Your task to perform on an android device: Go to accessibility settings Image 0: 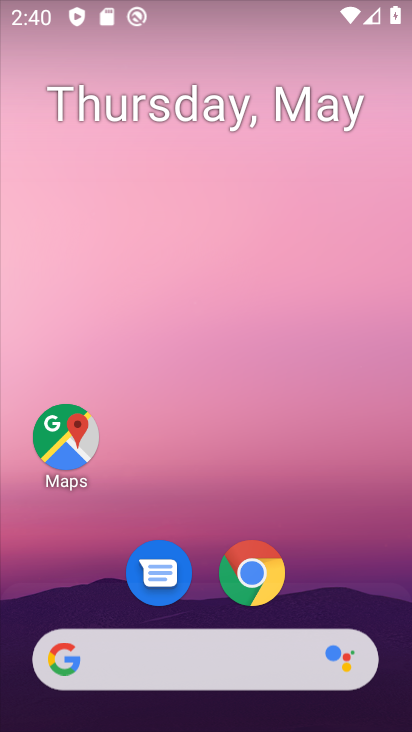
Step 0: drag from (91, 601) to (231, 45)
Your task to perform on an android device: Go to accessibility settings Image 1: 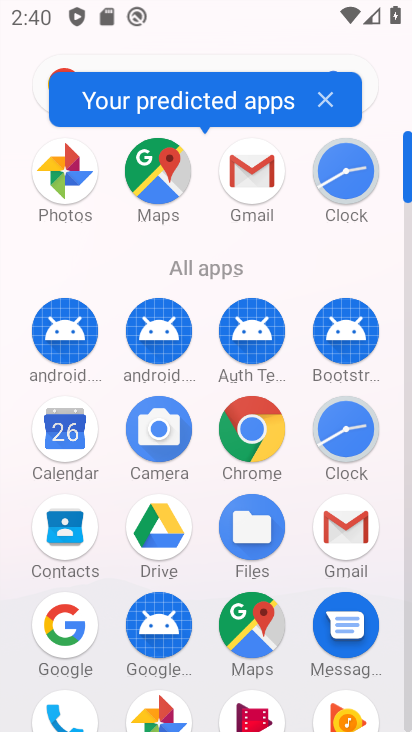
Step 1: drag from (178, 679) to (248, 383)
Your task to perform on an android device: Go to accessibility settings Image 2: 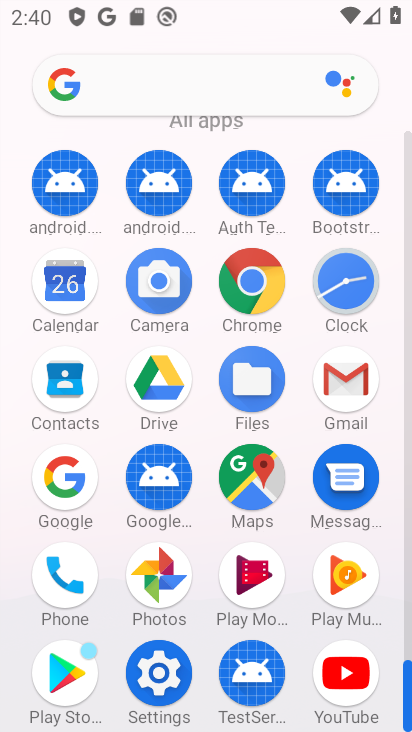
Step 2: click (170, 667)
Your task to perform on an android device: Go to accessibility settings Image 3: 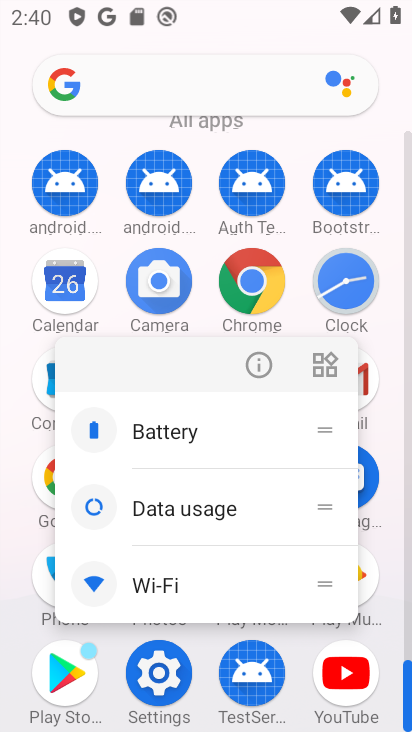
Step 3: click (161, 673)
Your task to perform on an android device: Go to accessibility settings Image 4: 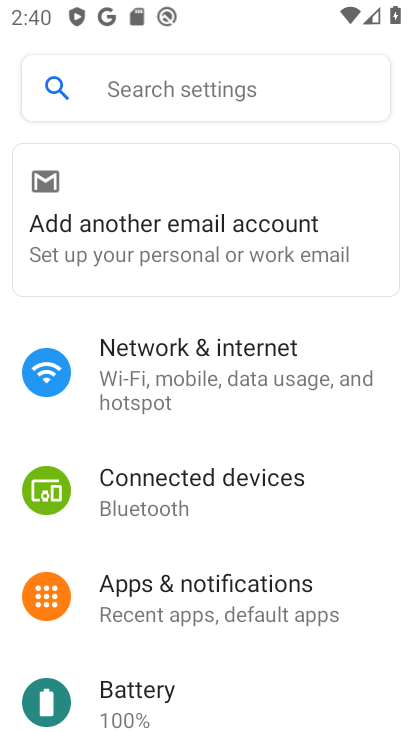
Step 4: drag from (207, 662) to (346, 229)
Your task to perform on an android device: Go to accessibility settings Image 5: 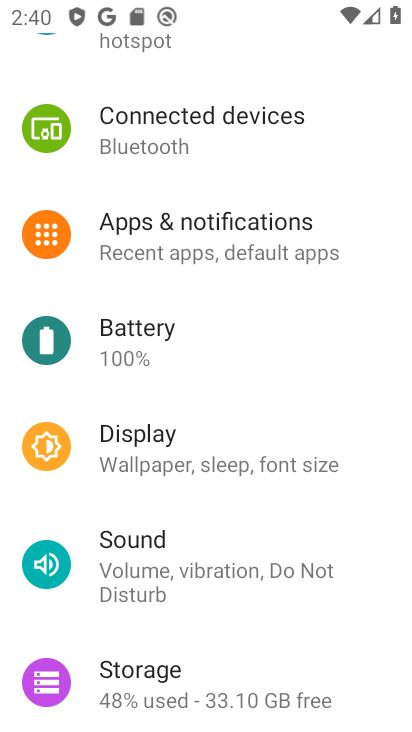
Step 5: drag from (149, 621) to (305, 81)
Your task to perform on an android device: Go to accessibility settings Image 6: 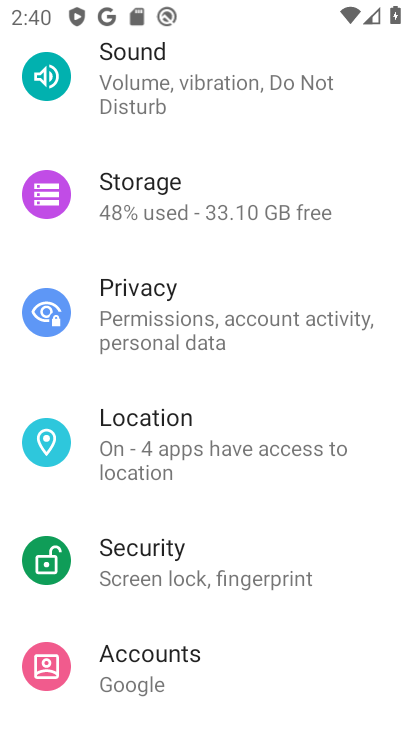
Step 6: drag from (155, 620) to (256, 267)
Your task to perform on an android device: Go to accessibility settings Image 7: 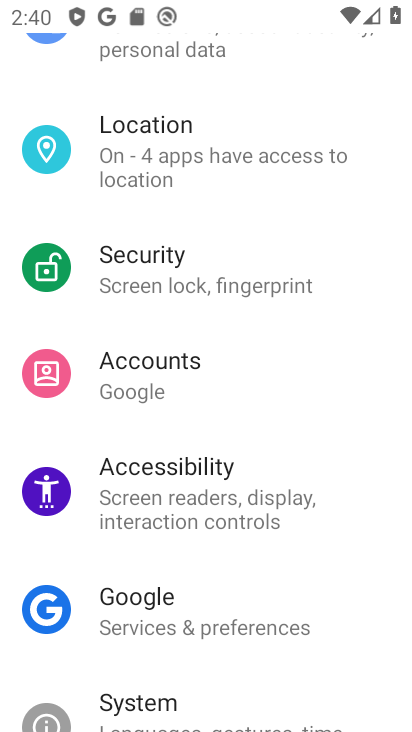
Step 7: click (181, 485)
Your task to perform on an android device: Go to accessibility settings Image 8: 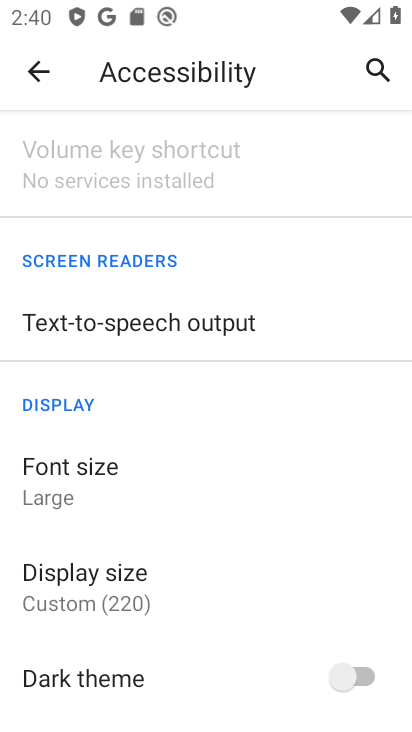
Step 8: task complete